Your task to perform on an android device: turn vacation reply on in the gmail app Image 0: 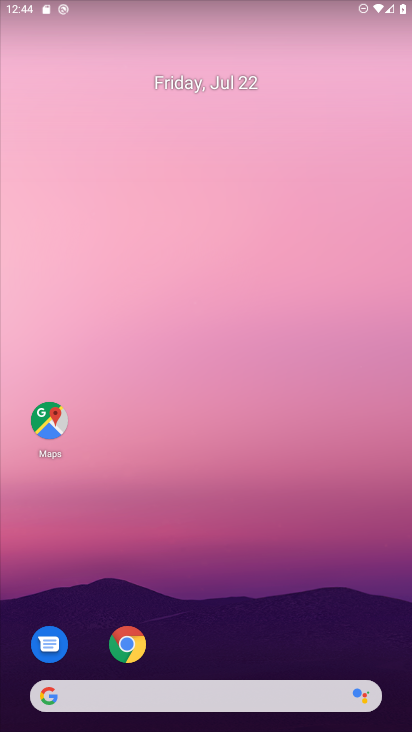
Step 0: drag from (225, 616) to (307, 25)
Your task to perform on an android device: turn vacation reply on in the gmail app Image 1: 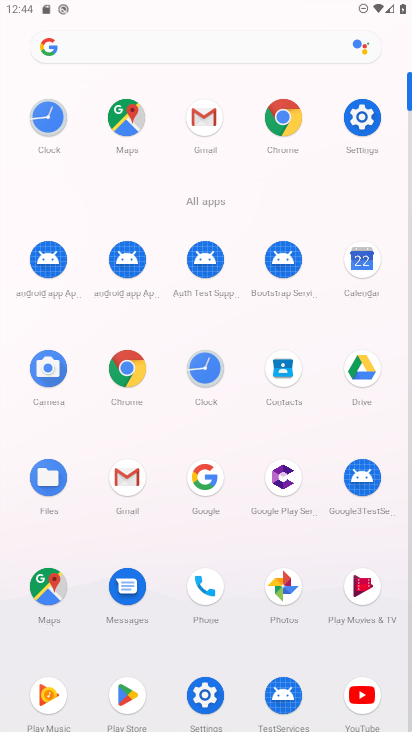
Step 1: click (203, 103)
Your task to perform on an android device: turn vacation reply on in the gmail app Image 2: 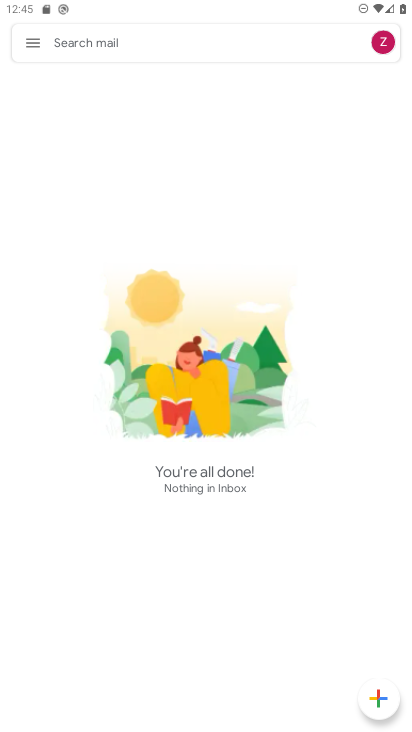
Step 2: click (5, 31)
Your task to perform on an android device: turn vacation reply on in the gmail app Image 3: 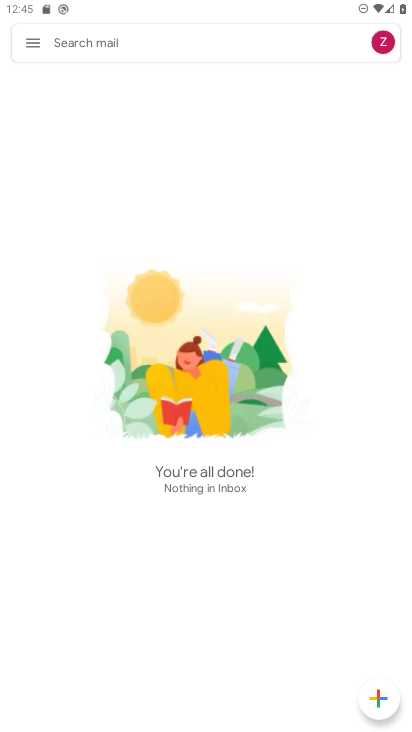
Step 3: click (30, 43)
Your task to perform on an android device: turn vacation reply on in the gmail app Image 4: 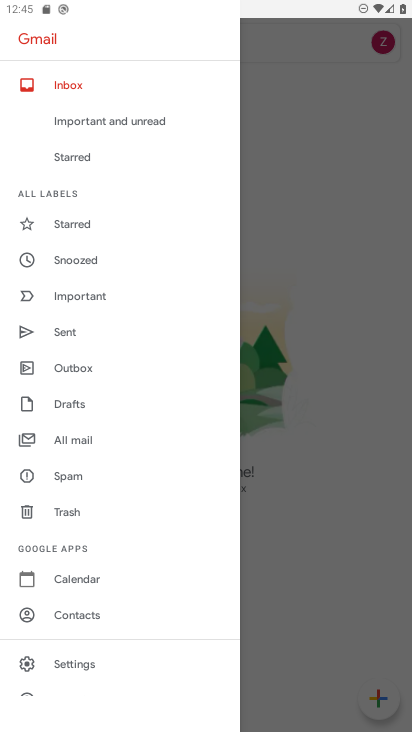
Step 4: click (108, 677)
Your task to perform on an android device: turn vacation reply on in the gmail app Image 5: 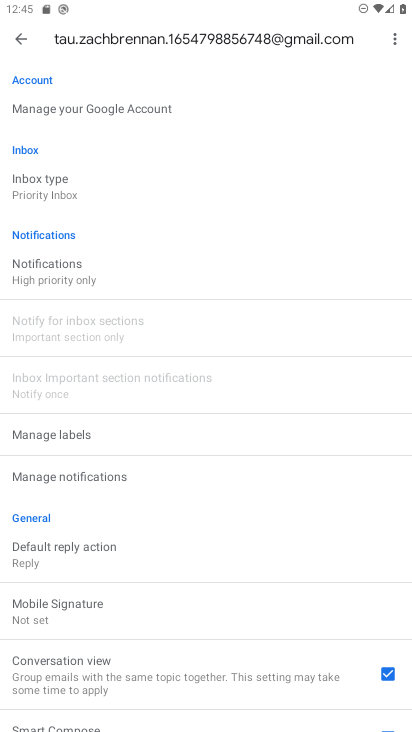
Step 5: drag from (87, 663) to (131, 118)
Your task to perform on an android device: turn vacation reply on in the gmail app Image 6: 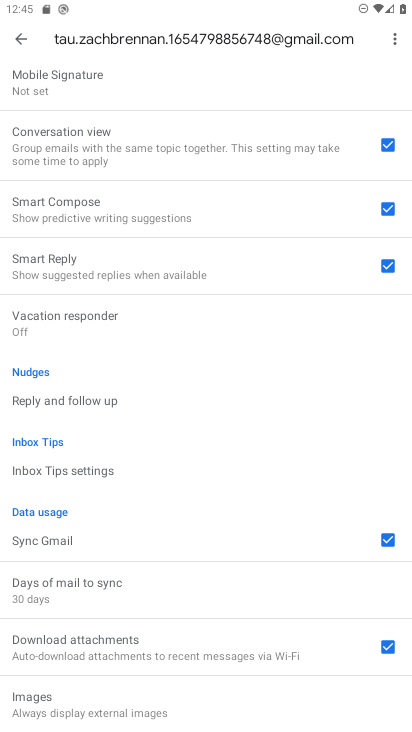
Step 6: drag from (209, 627) to (191, 365)
Your task to perform on an android device: turn vacation reply on in the gmail app Image 7: 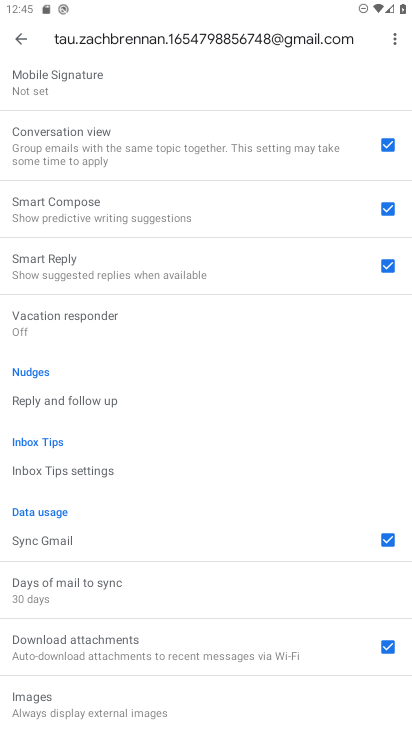
Step 7: click (111, 323)
Your task to perform on an android device: turn vacation reply on in the gmail app Image 8: 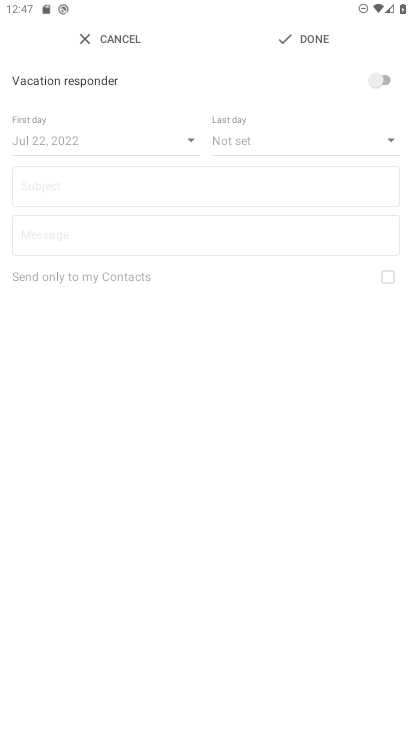
Step 8: click (328, 49)
Your task to perform on an android device: turn vacation reply on in the gmail app Image 9: 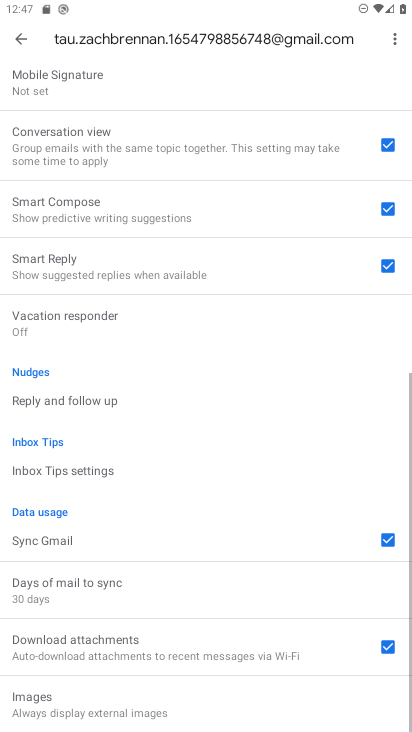
Step 9: task complete